Your task to perform on an android device: check android version Image 0: 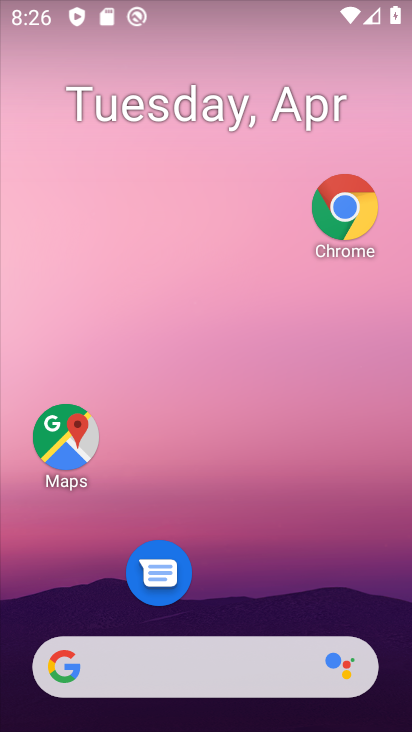
Step 0: drag from (219, 627) to (185, 5)
Your task to perform on an android device: check android version Image 1: 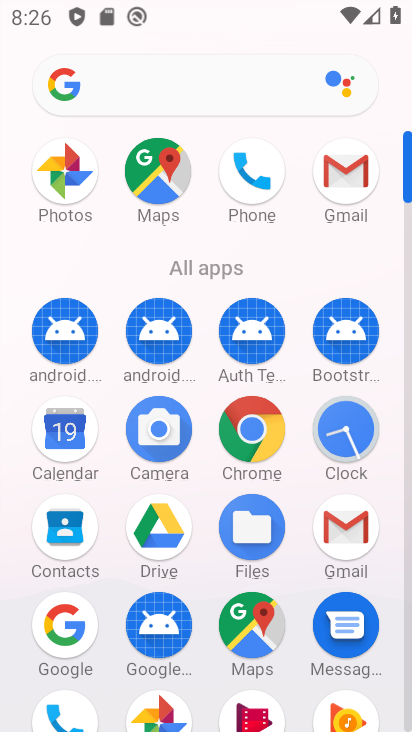
Step 1: drag from (199, 578) to (179, 124)
Your task to perform on an android device: check android version Image 2: 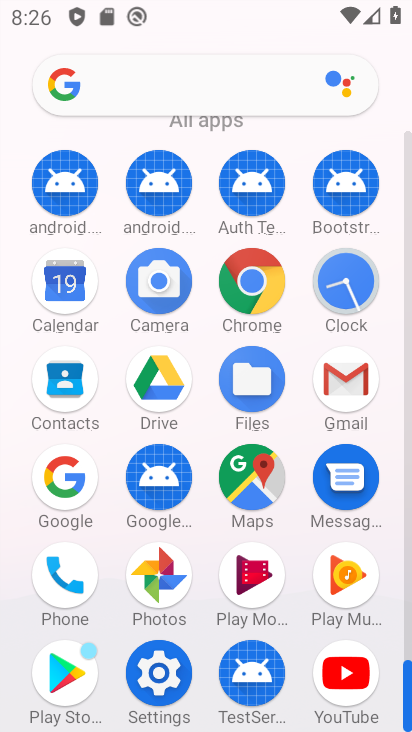
Step 2: click (162, 655)
Your task to perform on an android device: check android version Image 3: 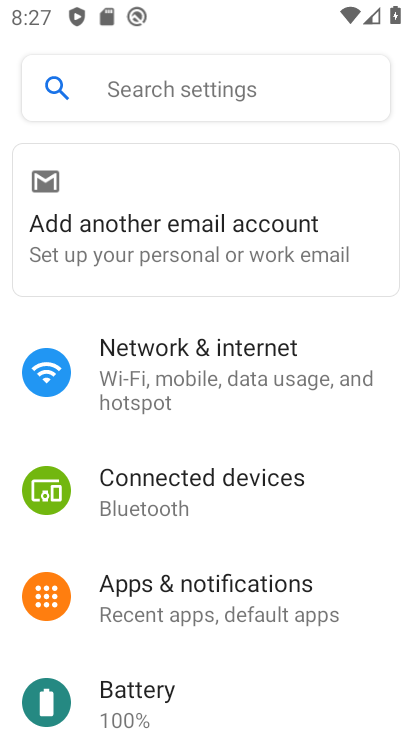
Step 3: drag from (201, 643) to (137, 41)
Your task to perform on an android device: check android version Image 4: 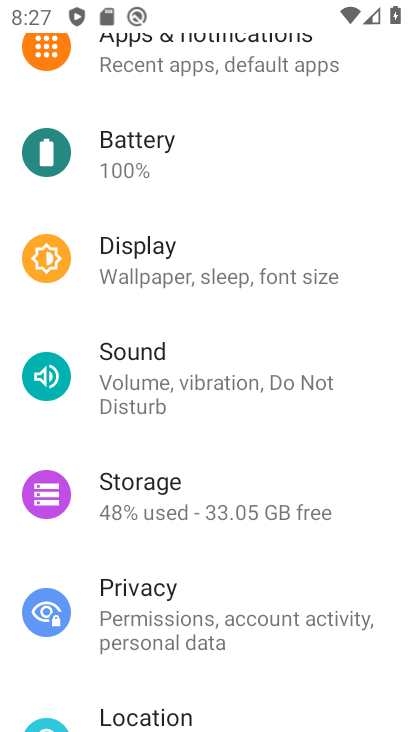
Step 4: drag from (206, 648) to (195, 140)
Your task to perform on an android device: check android version Image 5: 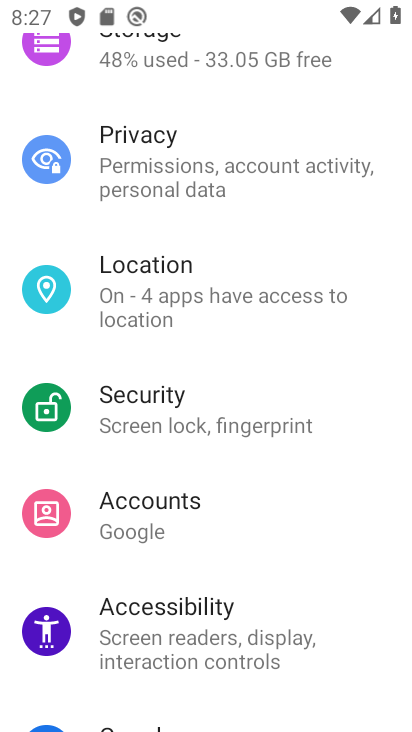
Step 5: drag from (199, 652) to (202, 204)
Your task to perform on an android device: check android version Image 6: 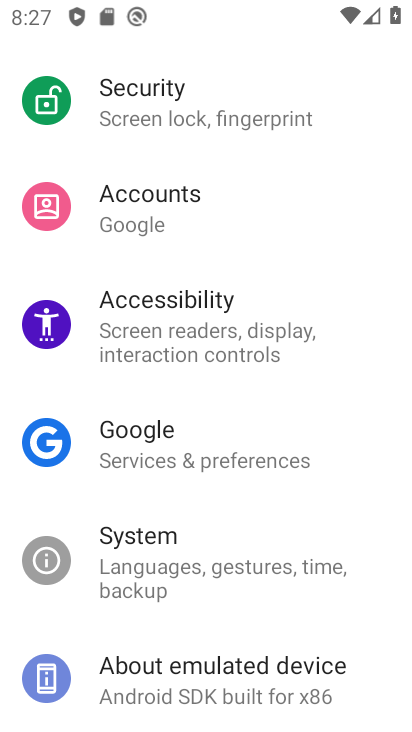
Step 6: click (176, 667)
Your task to perform on an android device: check android version Image 7: 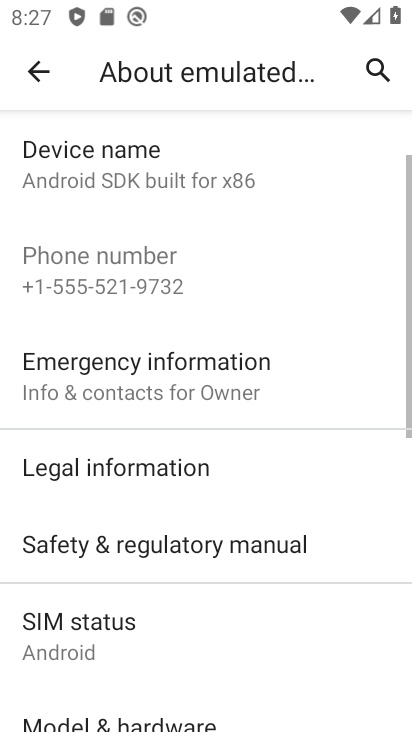
Step 7: drag from (189, 584) to (189, 132)
Your task to perform on an android device: check android version Image 8: 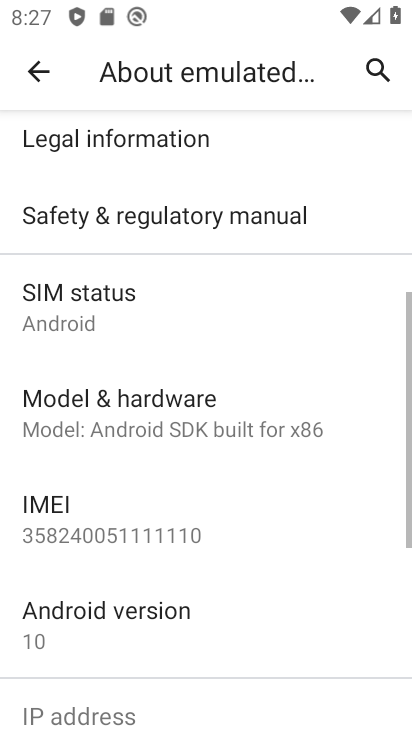
Step 8: click (114, 607)
Your task to perform on an android device: check android version Image 9: 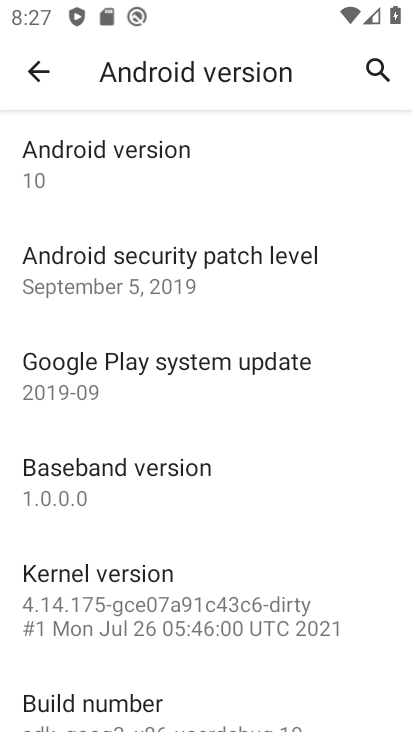
Step 9: task complete